Your task to perform on an android device: open app "Fetch Rewards" (install if not already installed) Image 0: 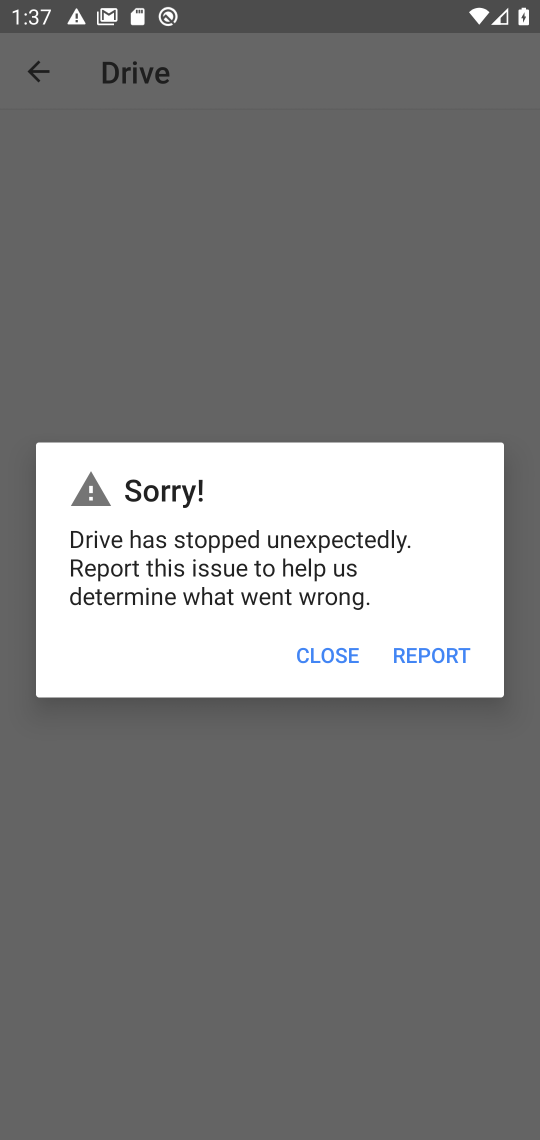
Step 0: press home button
Your task to perform on an android device: open app "Fetch Rewards" (install if not already installed) Image 1: 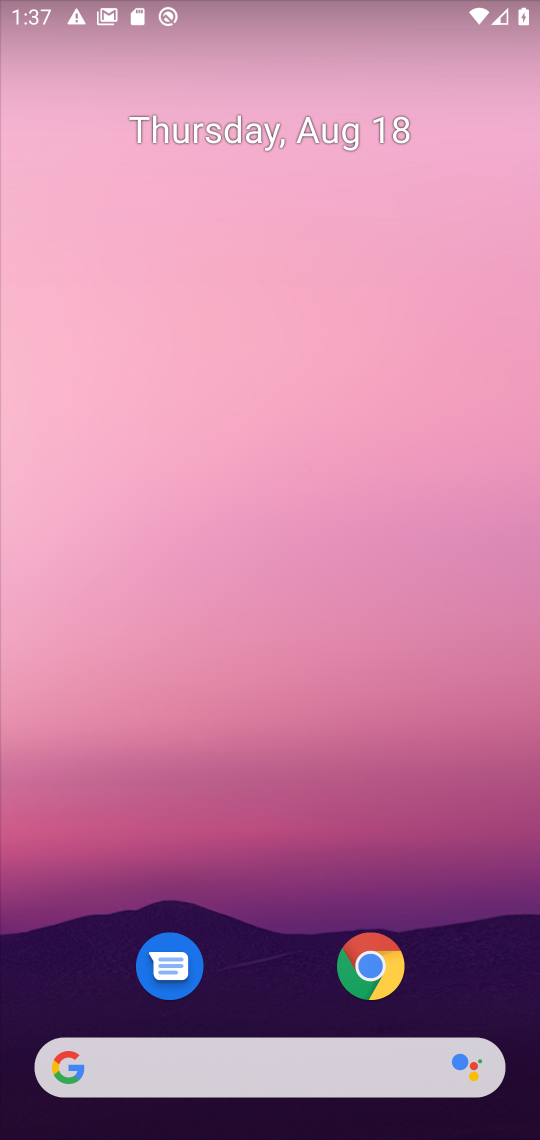
Step 1: drag from (257, 1002) to (219, 48)
Your task to perform on an android device: open app "Fetch Rewards" (install if not already installed) Image 2: 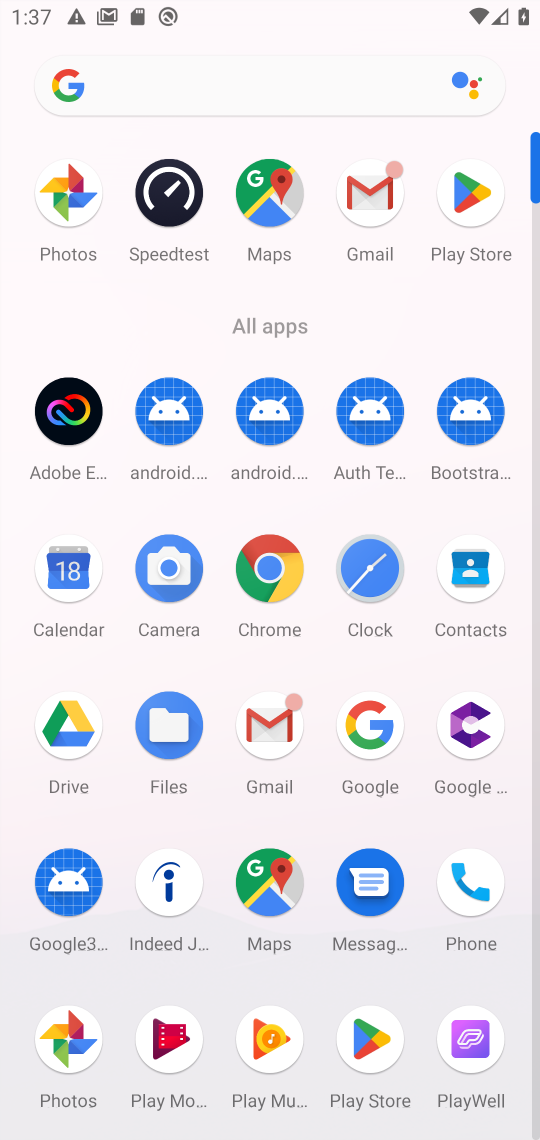
Step 2: click (464, 200)
Your task to perform on an android device: open app "Fetch Rewards" (install if not already installed) Image 3: 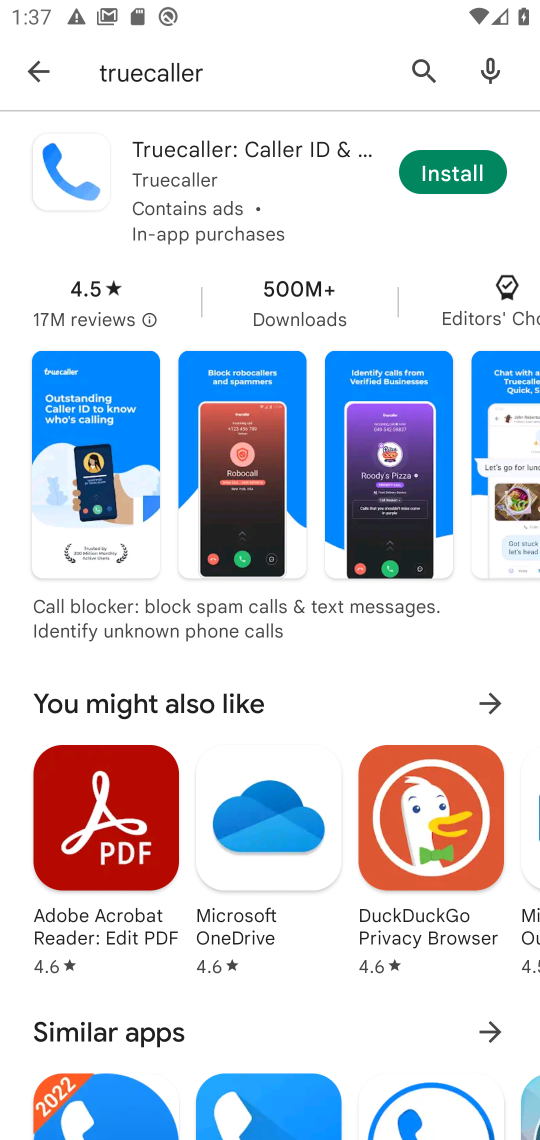
Step 3: click (57, 73)
Your task to perform on an android device: open app "Fetch Rewards" (install if not already installed) Image 4: 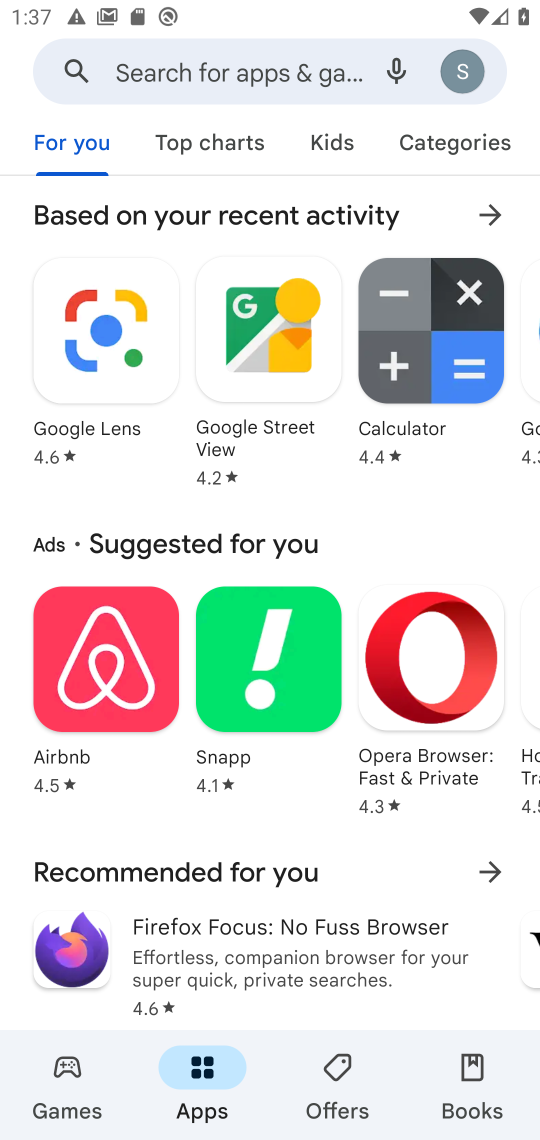
Step 4: click (207, 79)
Your task to perform on an android device: open app "Fetch Rewards" (install if not already installed) Image 5: 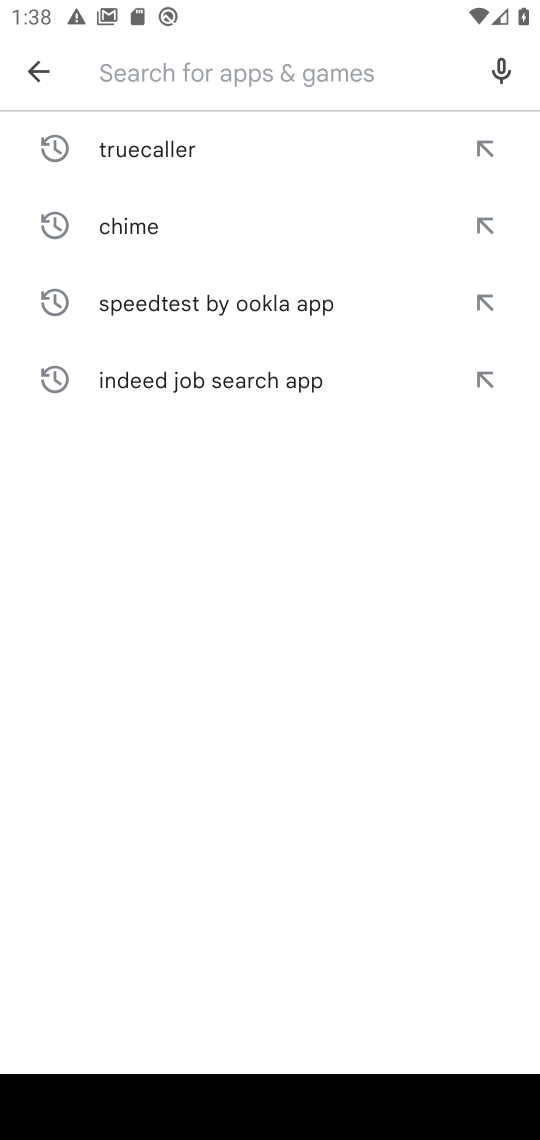
Step 5: type "Fetch Rewards"
Your task to perform on an android device: open app "Fetch Rewards" (install if not already installed) Image 6: 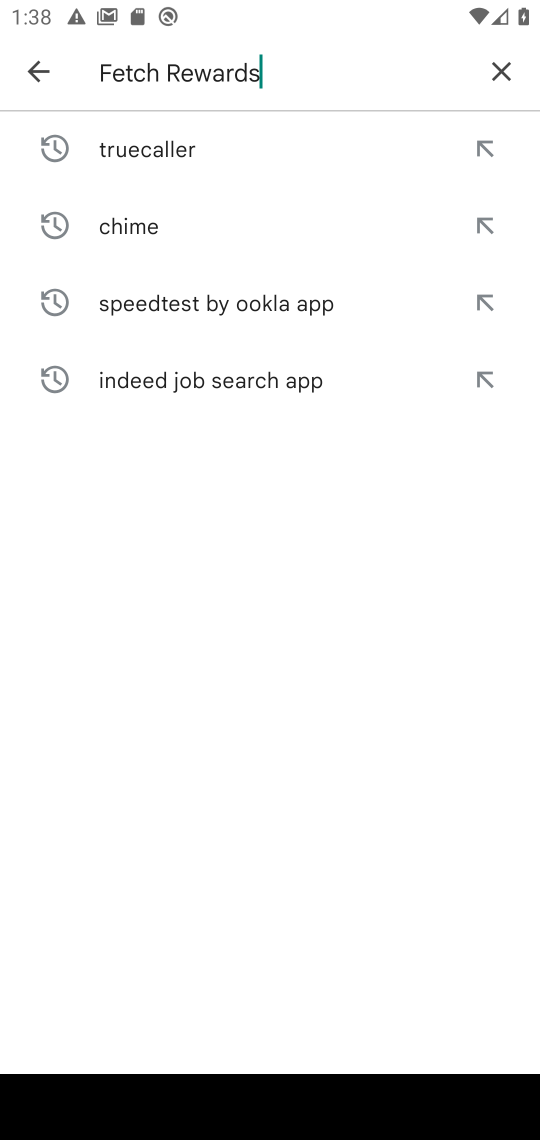
Step 6: type ""
Your task to perform on an android device: open app "Fetch Rewards" (install if not already installed) Image 7: 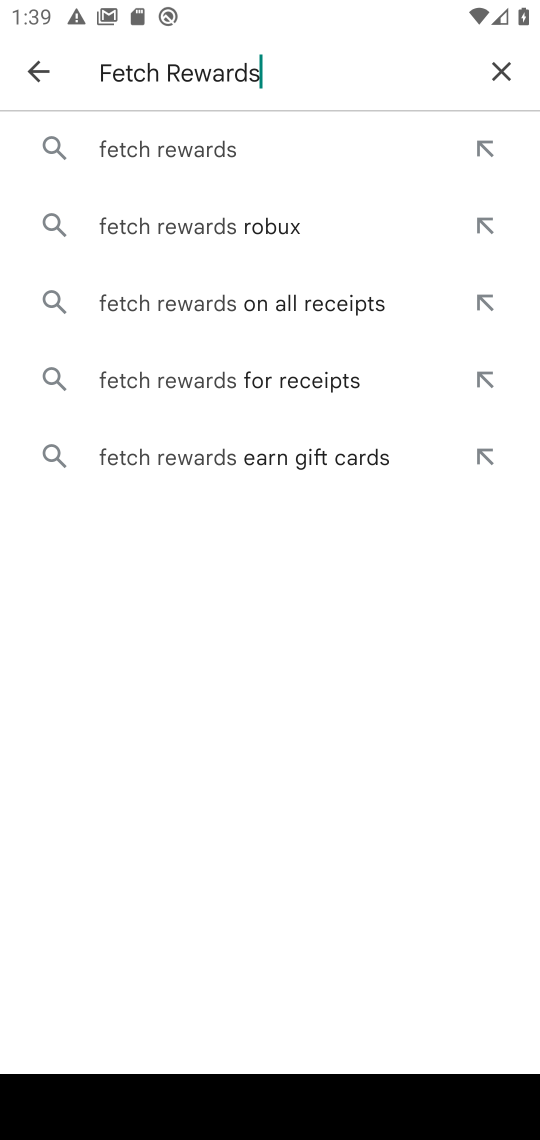
Step 7: click (228, 134)
Your task to perform on an android device: open app "Fetch Rewards" (install if not already installed) Image 8: 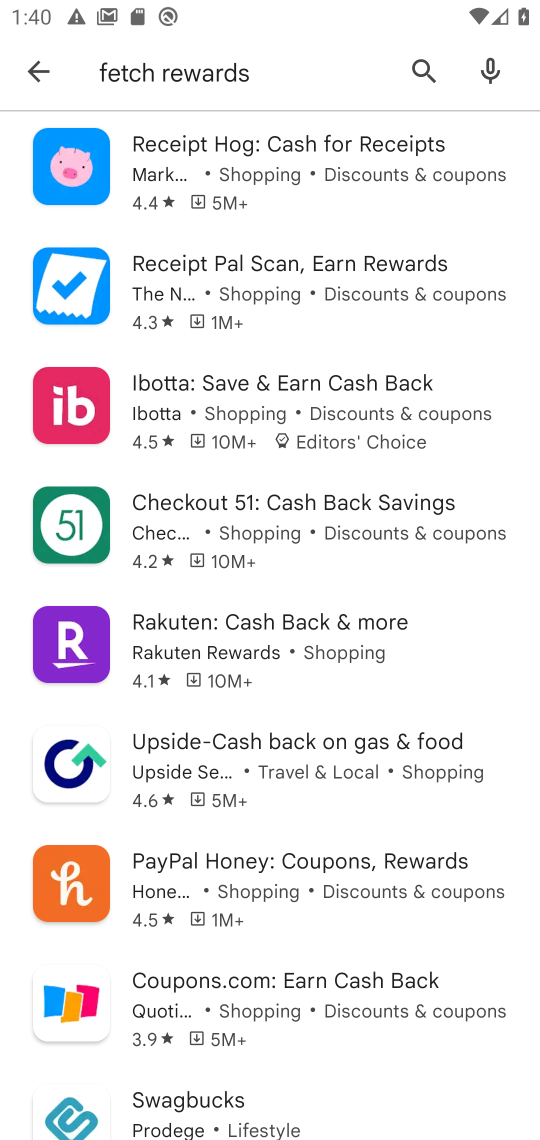
Step 8: task complete